Your task to perform on an android device: Go to Android settings Image 0: 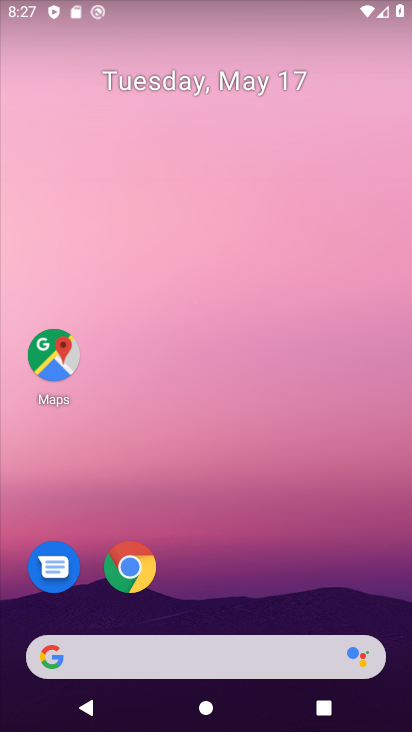
Step 0: drag from (194, 634) to (254, 177)
Your task to perform on an android device: Go to Android settings Image 1: 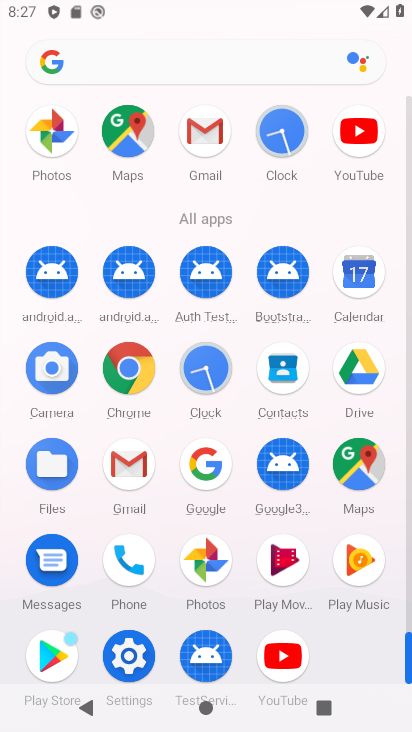
Step 1: click (133, 647)
Your task to perform on an android device: Go to Android settings Image 2: 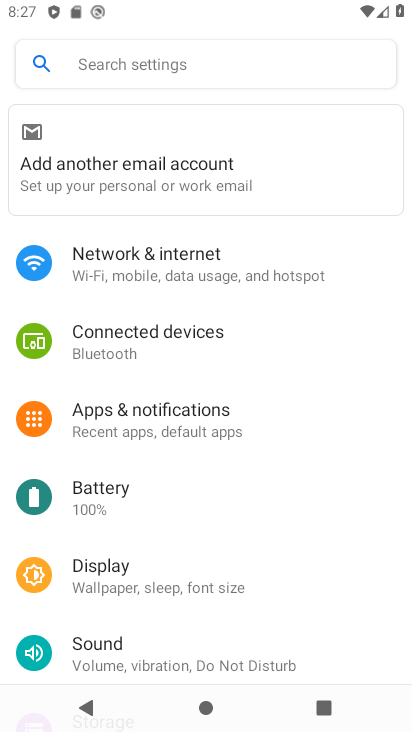
Step 2: task complete